Your task to perform on an android device: Open the stopwatch Image 0: 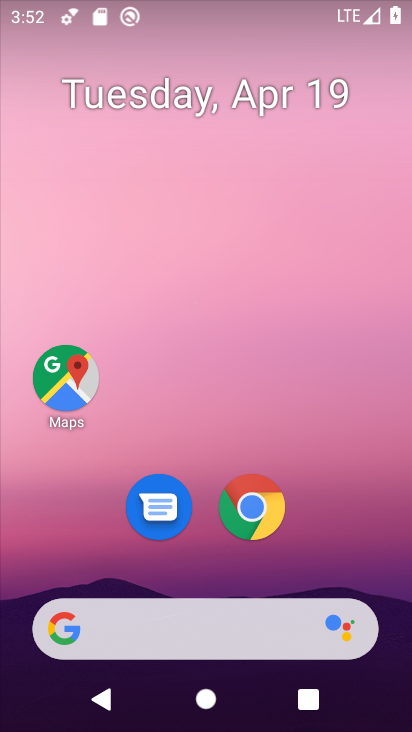
Step 0: drag from (313, 553) to (329, 111)
Your task to perform on an android device: Open the stopwatch Image 1: 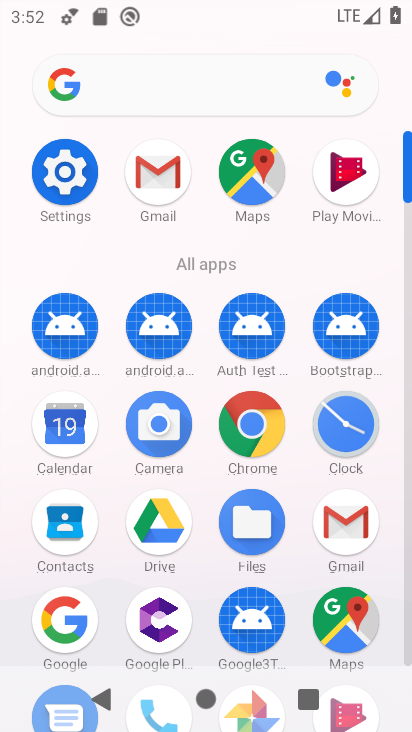
Step 1: click (354, 396)
Your task to perform on an android device: Open the stopwatch Image 2: 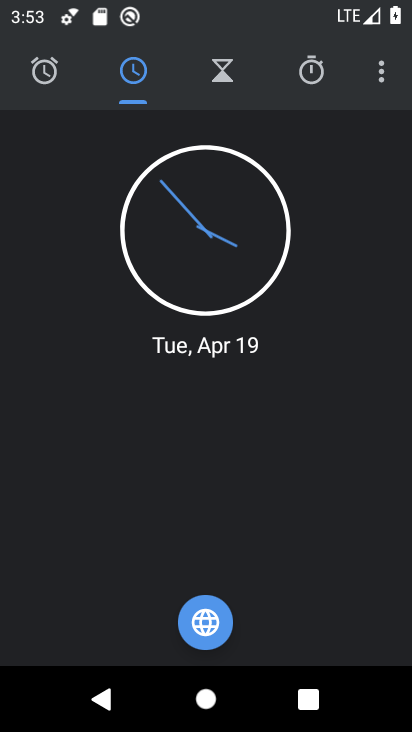
Step 2: click (320, 71)
Your task to perform on an android device: Open the stopwatch Image 3: 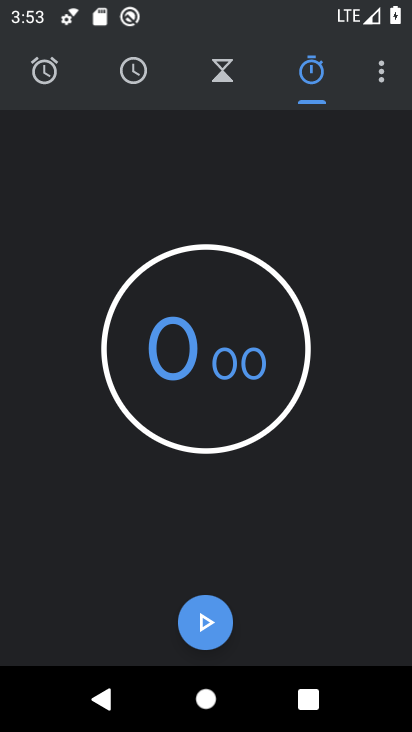
Step 3: task complete